Your task to perform on an android device: check google app version Image 0: 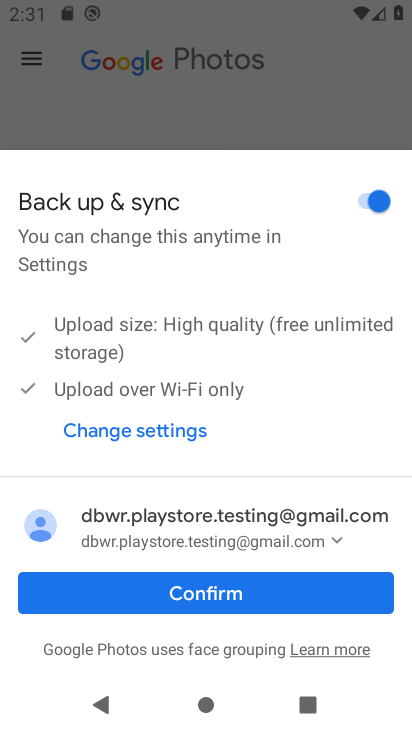
Step 0: press home button
Your task to perform on an android device: check google app version Image 1: 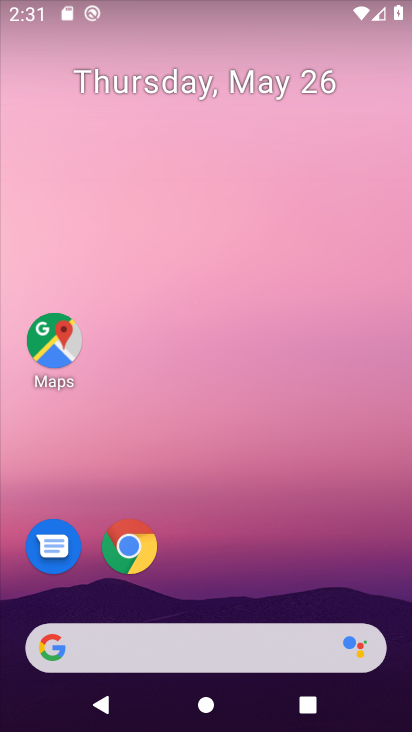
Step 1: drag from (218, 604) to (247, 30)
Your task to perform on an android device: check google app version Image 2: 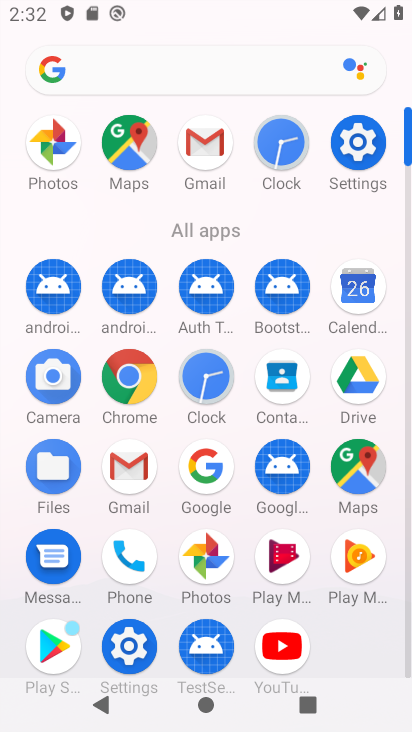
Step 2: click (199, 459)
Your task to perform on an android device: check google app version Image 3: 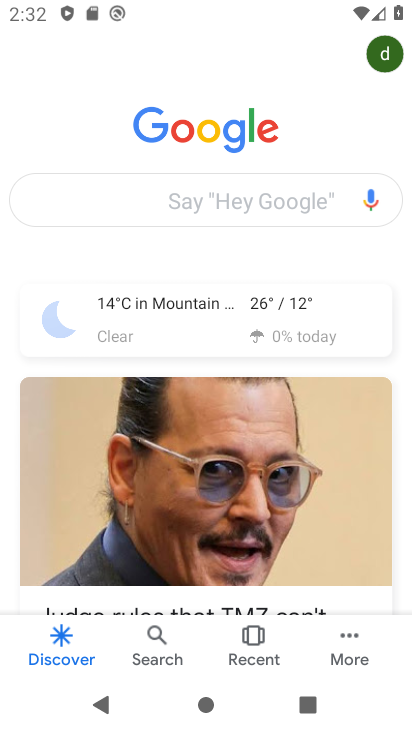
Step 3: click (345, 636)
Your task to perform on an android device: check google app version Image 4: 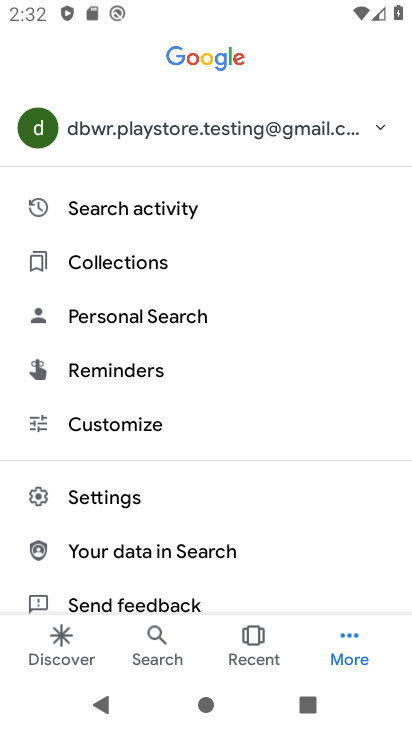
Step 4: click (147, 494)
Your task to perform on an android device: check google app version Image 5: 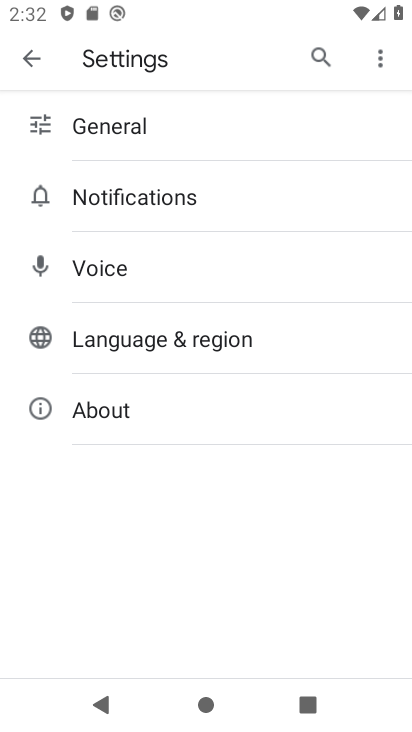
Step 5: click (129, 402)
Your task to perform on an android device: check google app version Image 6: 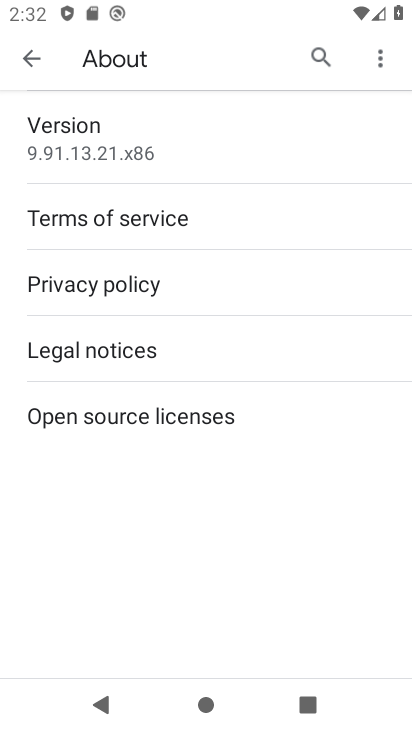
Step 6: task complete